Your task to perform on an android device: turn pop-ups off in chrome Image 0: 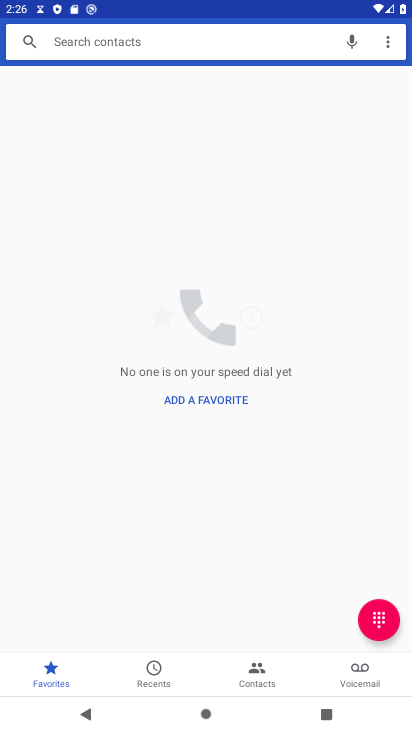
Step 0: press home button
Your task to perform on an android device: turn pop-ups off in chrome Image 1: 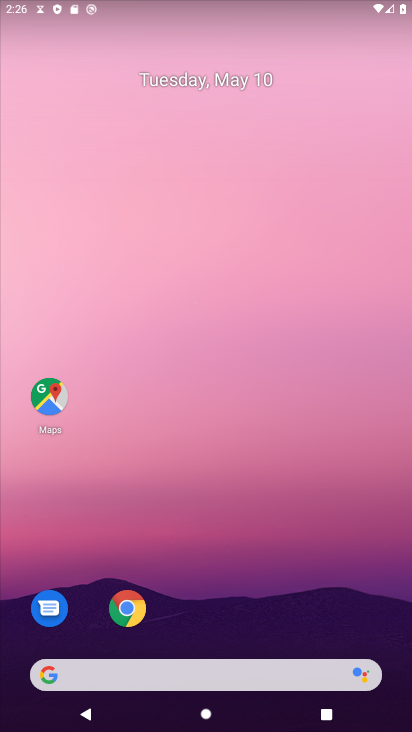
Step 1: click (127, 621)
Your task to perform on an android device: turn pop-ups off in chrome Image 2: 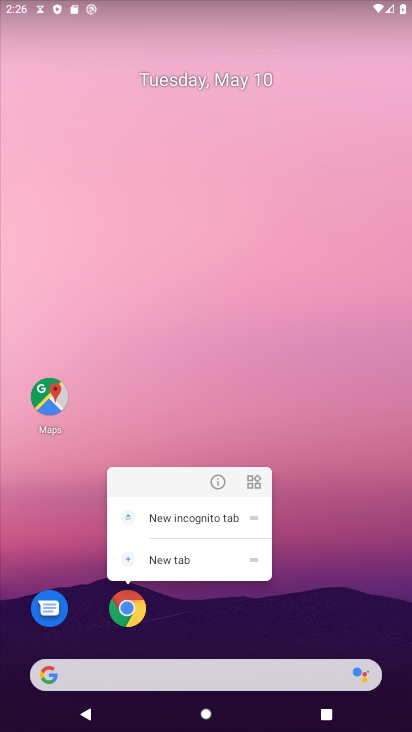
Step 2: click (126, 619)
Your task to perform on an android device: turn pop-ups off in chrome Image 3: 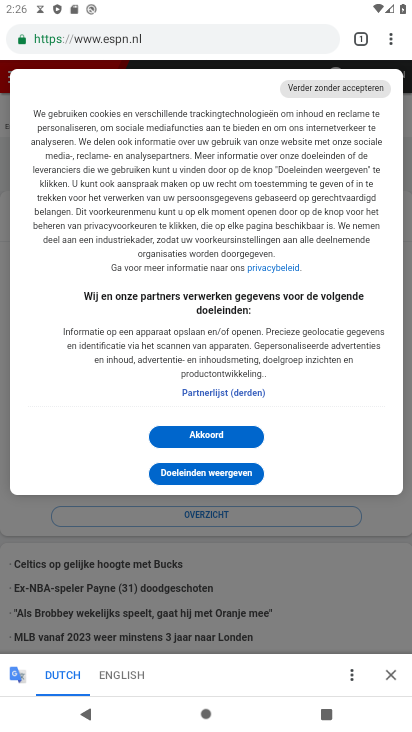
Step 3: click (389, 43)
Your task to perform on an android device: turn pop-ups off in chrome Image 4: 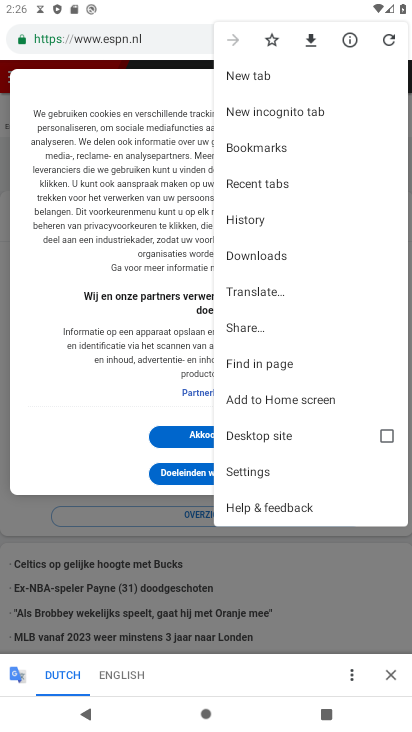
Step 4: click (246, 473)
Your task to perform on an android device: turn pop-ups off in chrome Image 5: 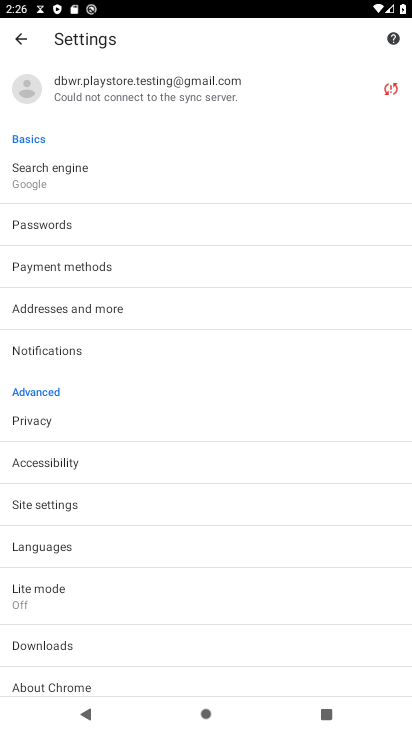
Step 5: click (33, 507)
Your task to perform on an android device: turn pop-ups off in chrome Image 6: 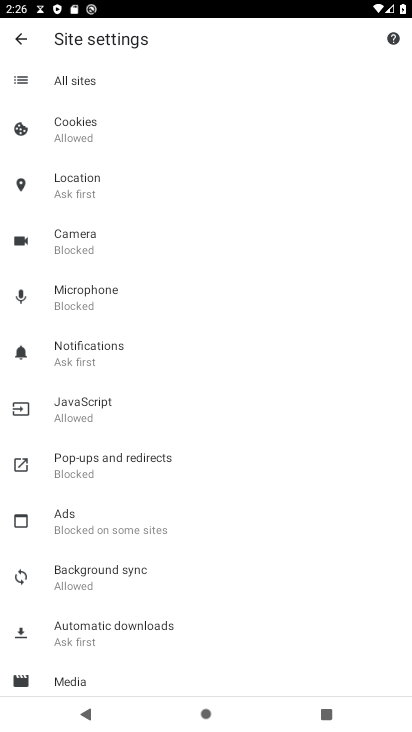
Step 6: click (76, 457)
Your task to perform on an android device: turn pop-ups off in chrome Image 7: 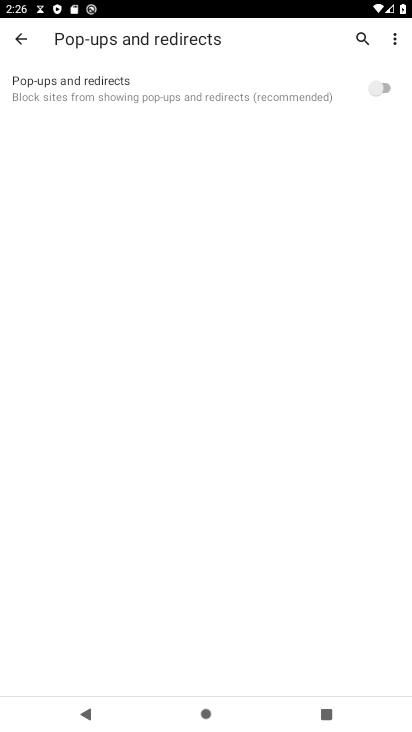
Step 7: task complete